Your task to perform on an android device: empty trash in the gmail app Image 0: 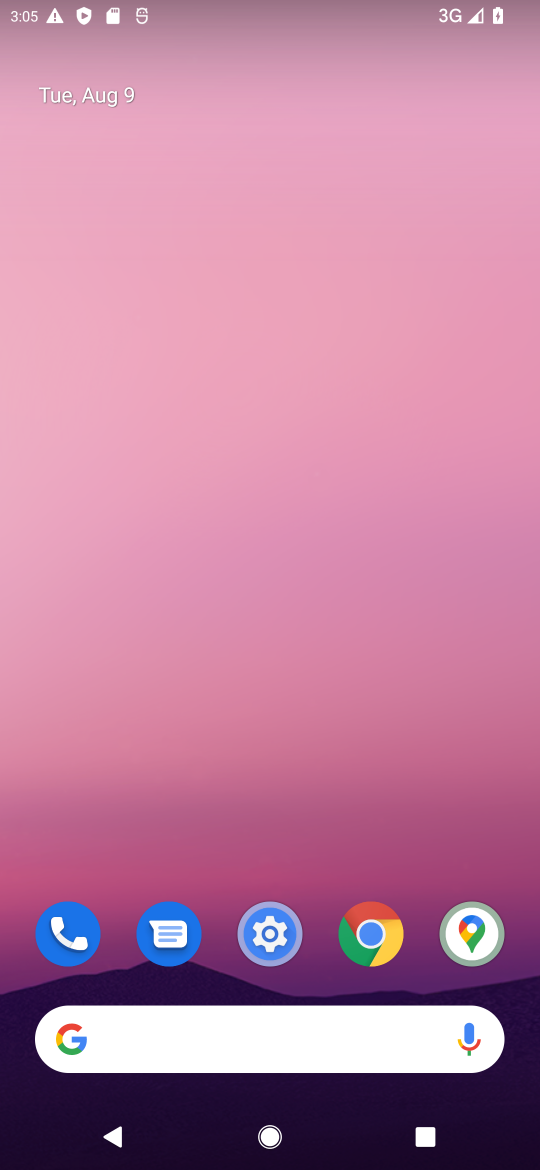
Step 0: drag from (320, 991) to (369, 110)
Your task to perform on an android device: empty trash in the gmail app Image 1: 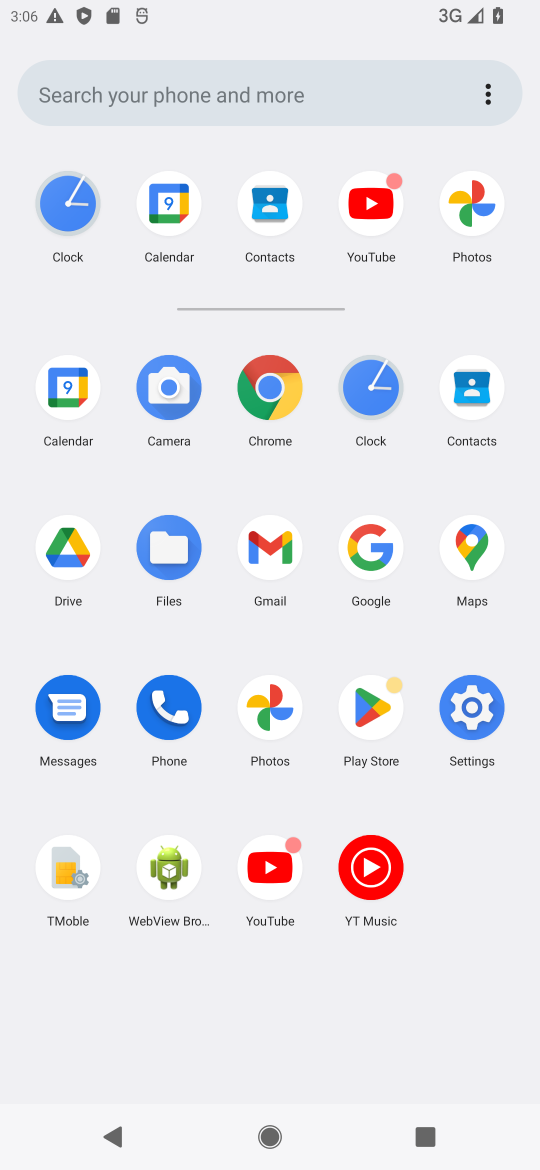
Step 1: click (277, 586)
Your task to perform on an android device: empty trash in the gmail app Image 2: 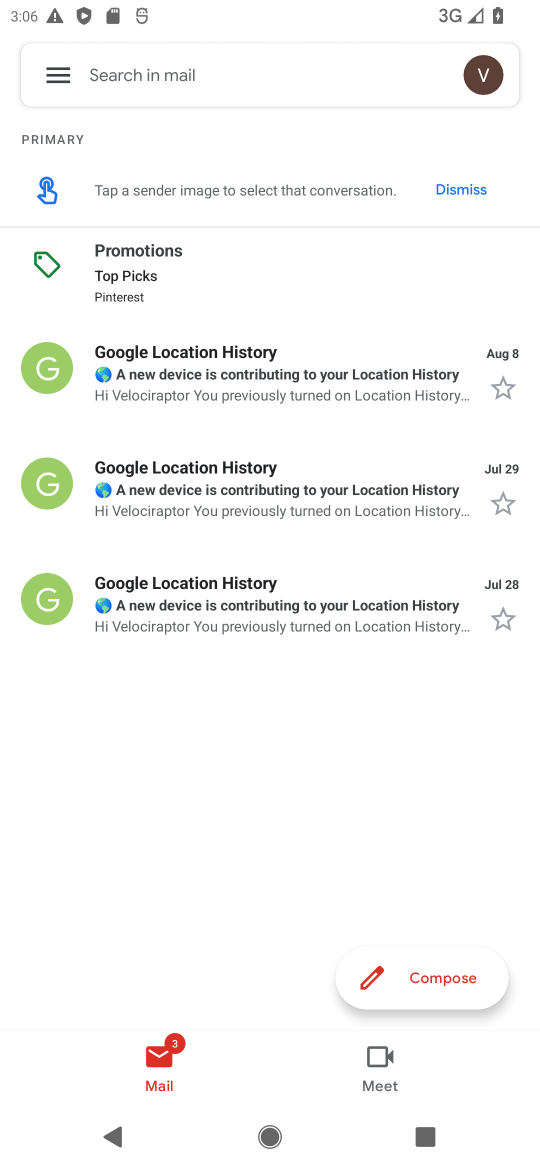
Step 2: click (48, 57)
Your task to perform on an android device: empty trash in the gmail app Image 3: 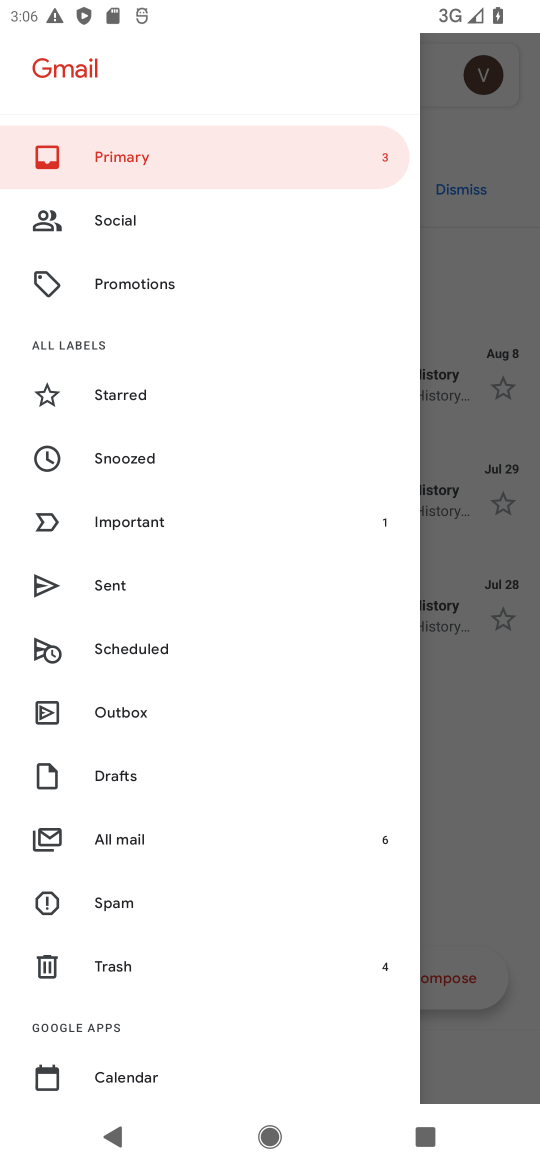
Step 3: click (162, 968)
Your task to perform on an android device: empty trash in the gmail app Image 4: 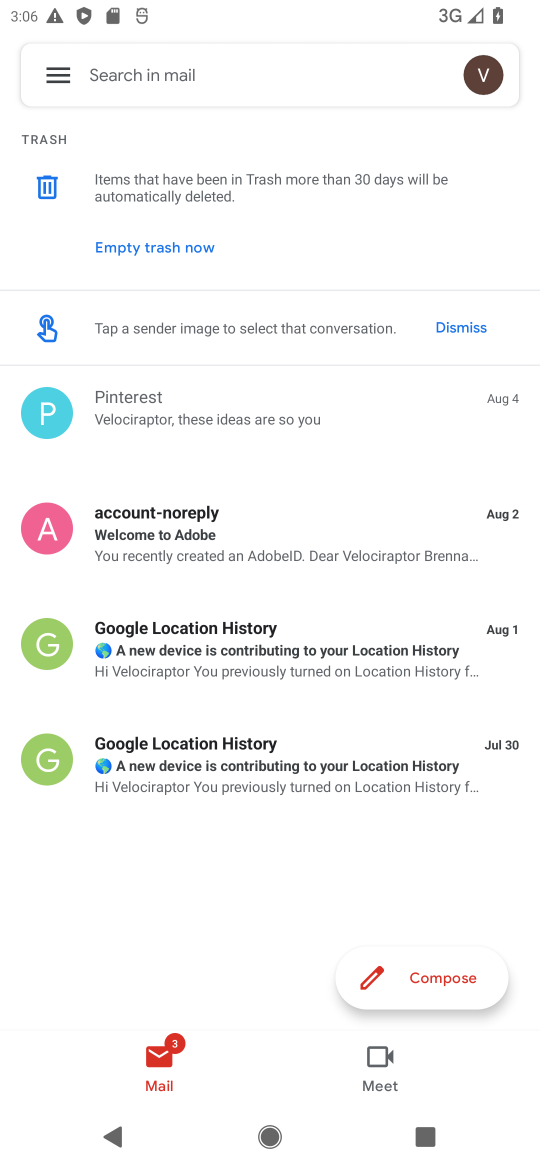
Step 4: click (130, 250)
Your task to perform on an android device: empty trash in the gmail app Image 5: 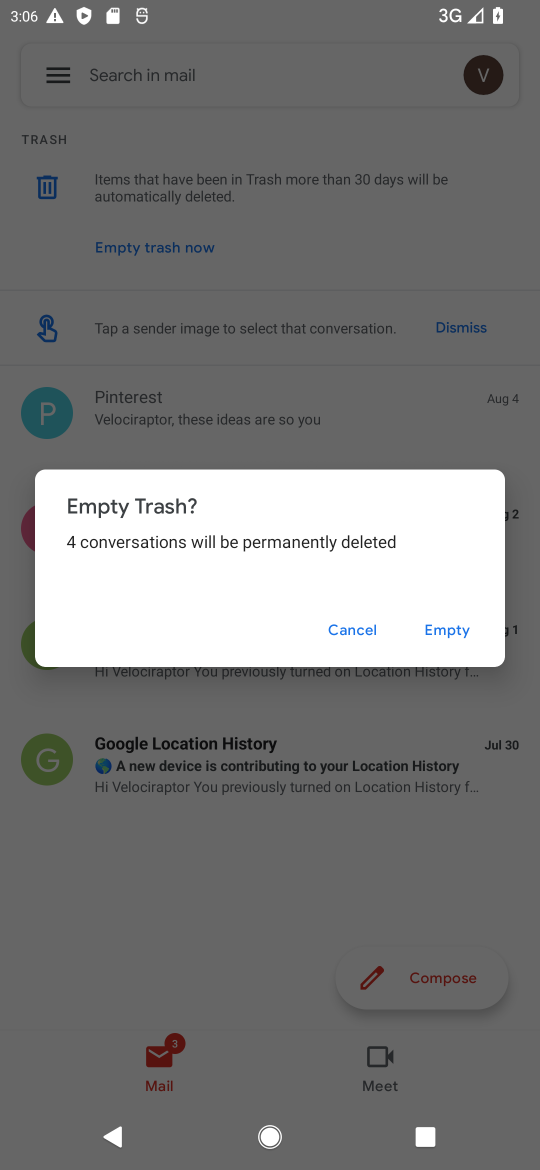
Step 5: click (444, 612)
Your task to perform on an android device: empty trash in the gmail app Image 6: 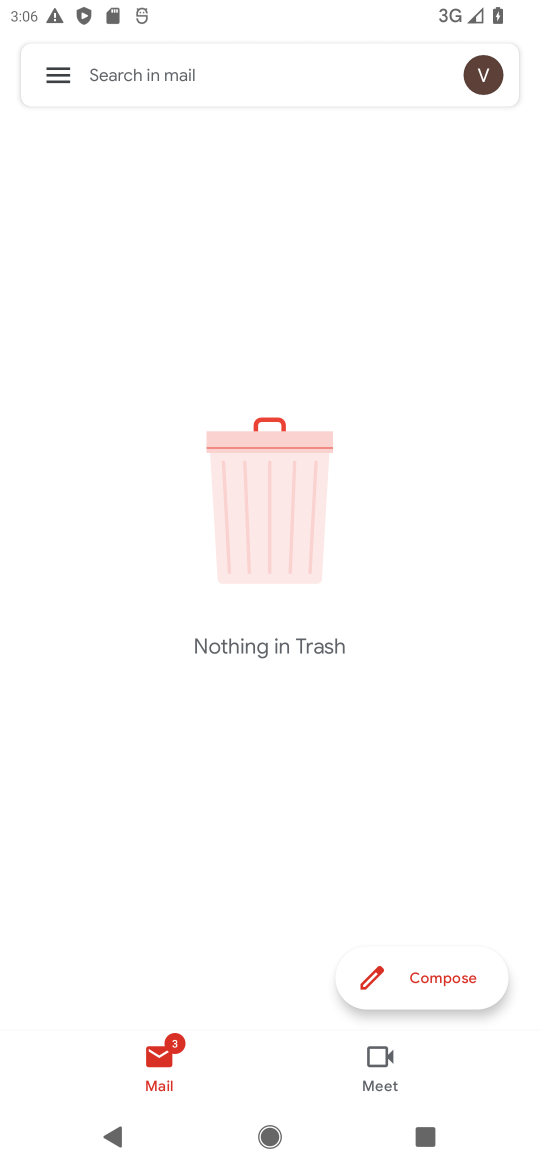
Step 6: task complete